Your task to perform on an android device: turn notification dots on Image 0: 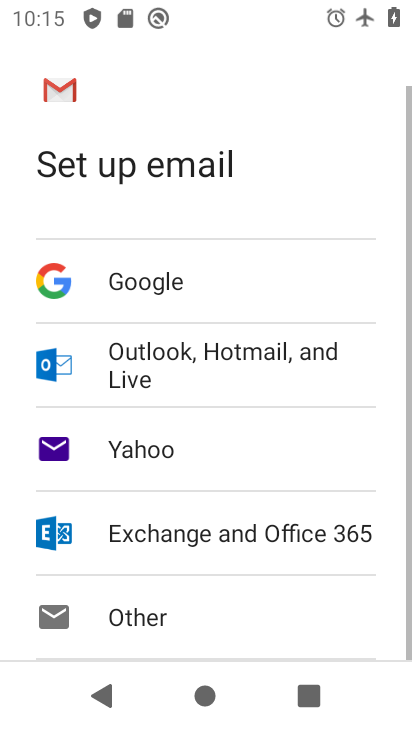
Step 0: drag from (215, 481) to (363, 89)
Your task to perform on an android device: turn notification dots on Image 1: 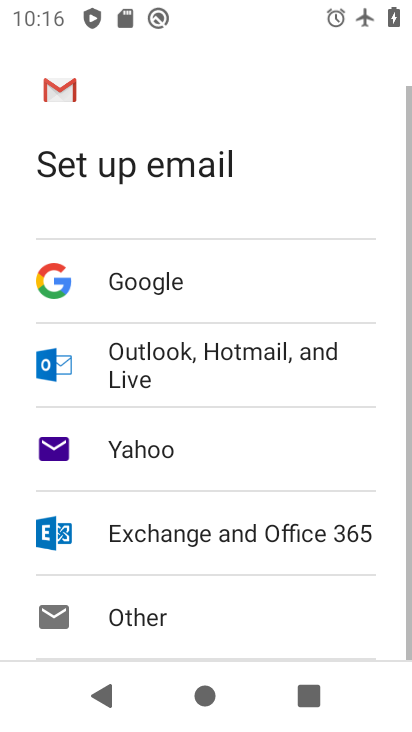
Step 1: drag from (150, 556) to (244, 203)
Your task to perform on an android device: turn notification dots on Image 2: 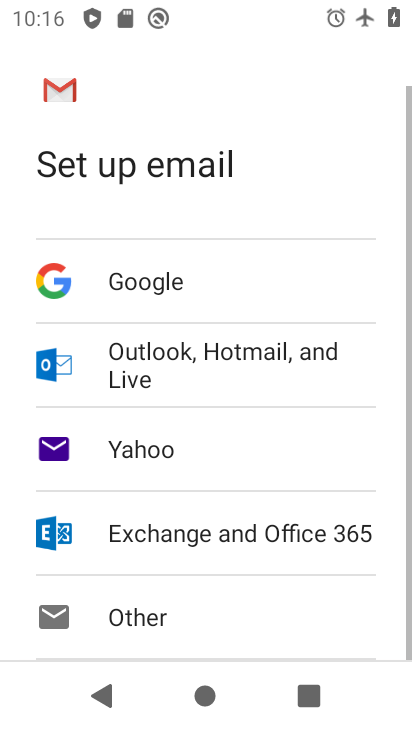
Step 2: press home button
Your task to perform on an android device: turn notification dots on Image 3: 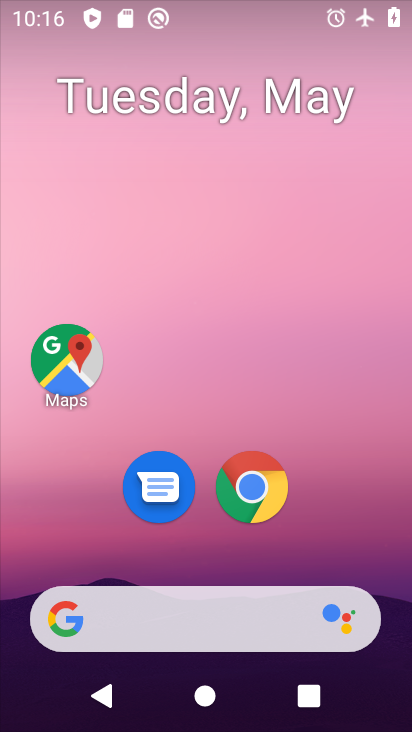
Step 3: drag from (288, 470) to (345, 196)
Your task to perform on an android device: turn notification dots on Image 4: 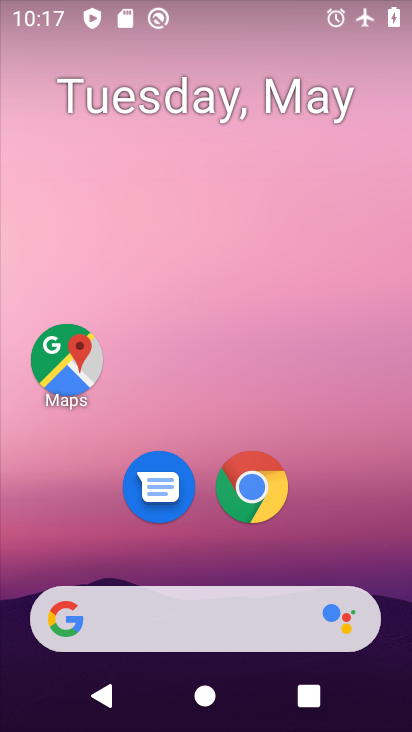
Step 4: drag from (204, 503) to (247, 175)
Your task to perform on an android device: turn notification dots on Image 5: 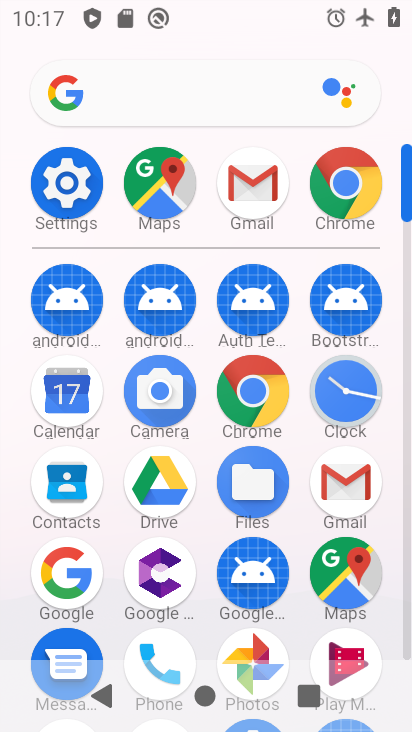
Step 5: click (59, 179)
Your task to perform on an android device: turn notification dots on Image 6: 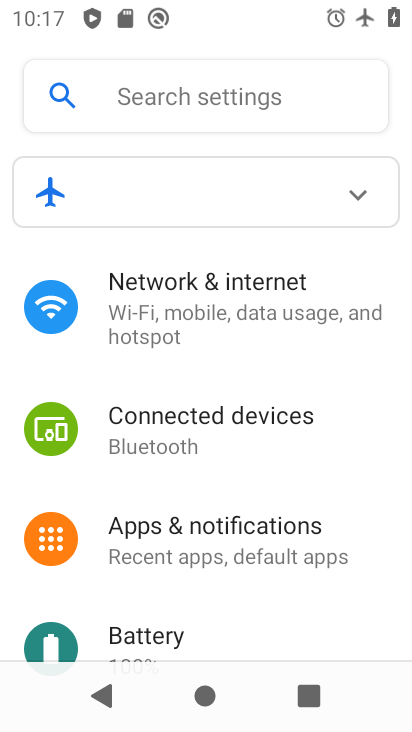
Step 6: click (167, 552)
Your task to perform on an android device: turn notification dots on Image 7: 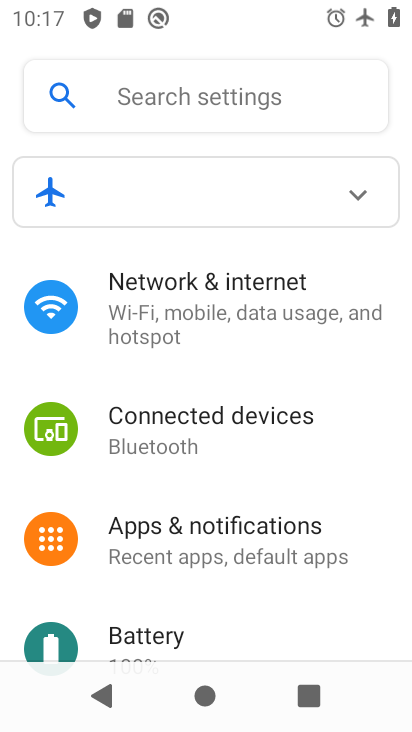
Step 7: click (167, 552)
Your task to perform on an android device: turn notification dots on Image 8: 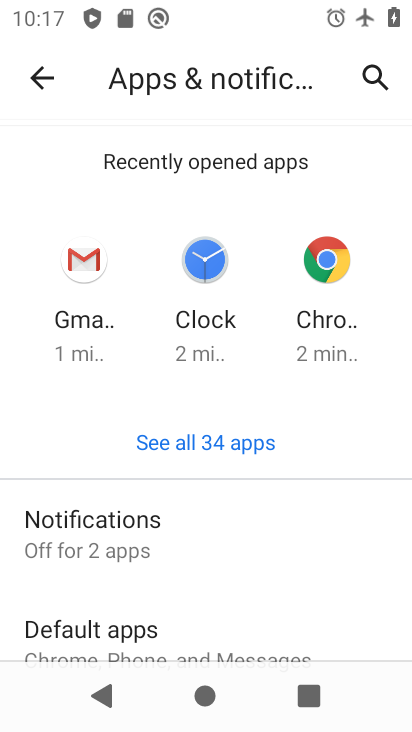
Step 8: click (175, 524)
Your task to perform on an android device: turn notification dots on Image 9: 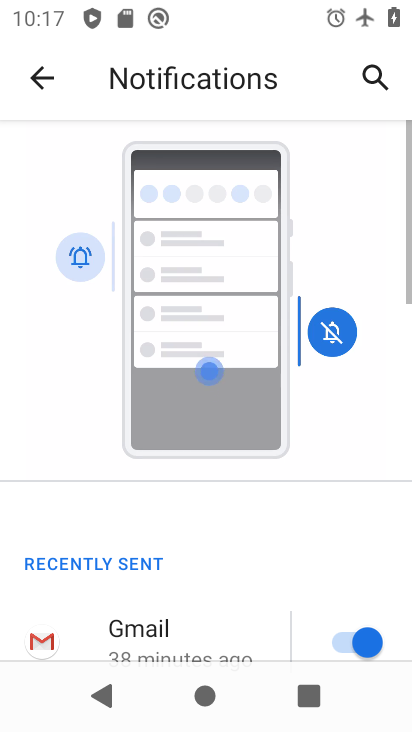
Step 9: drag from (175, 524) to (285, 75)
Your task to perform on an android device: turn notification dots on Image 10: 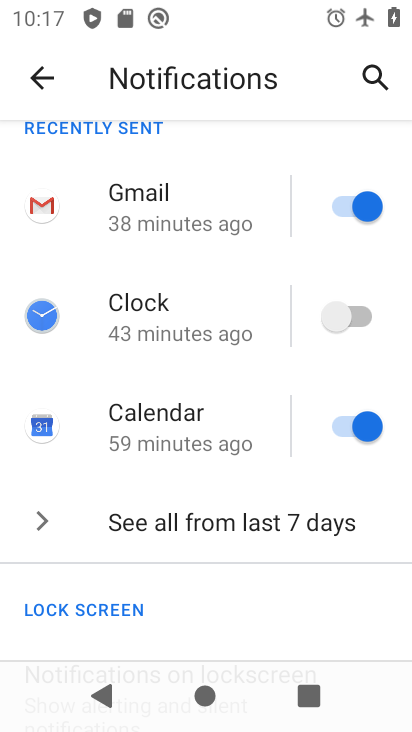
Step 10: drag from (180, 570) to (306, 109)
Your task to perform on an android device: turn notification dots on Image 11: 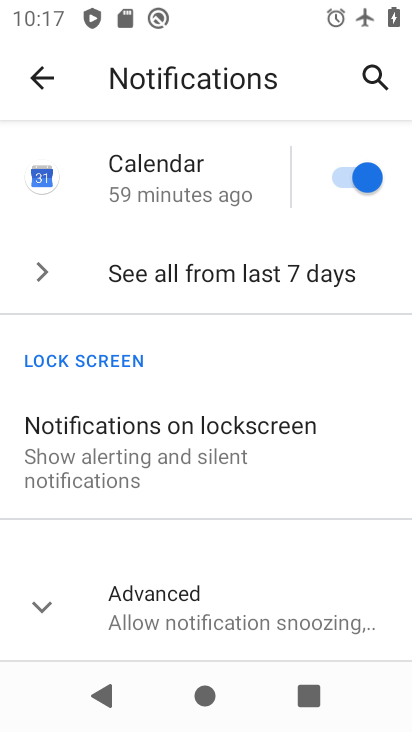
Step 11: click (154, 600)
Your task to perform on an android device: turn notification dots on Image 12: 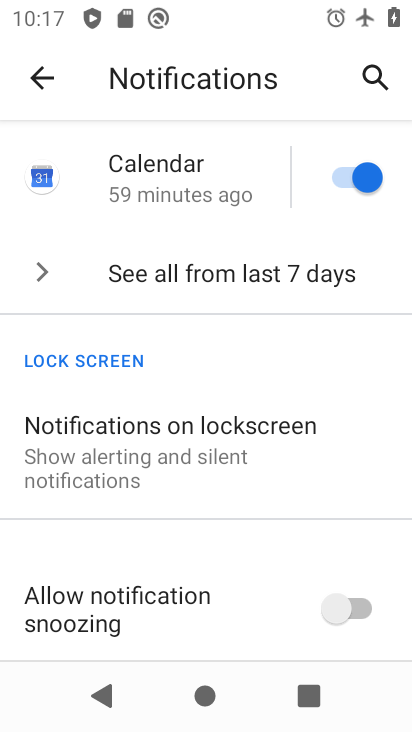
Step 12: drag from (188, 573) to (254, 235)
Your task to perform on an android device: turn notification dots on Image 13: 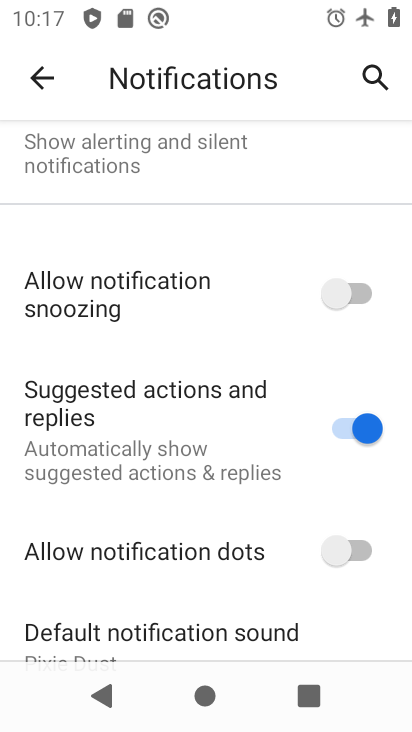
Step 13: click (322, 536)
Your task to perform on an android device: turn notification dots on Image 14: 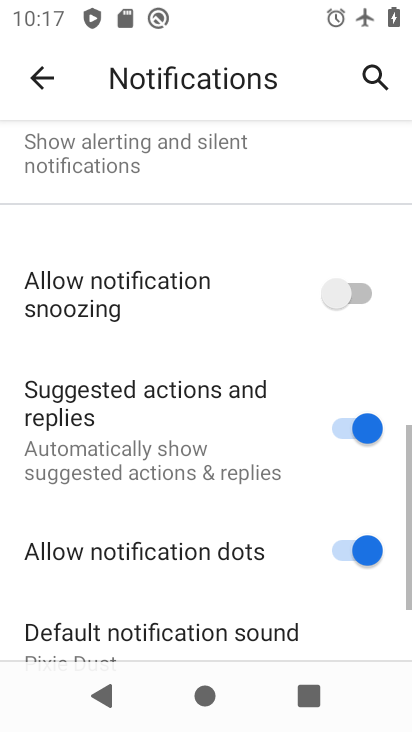
Step 14: task complete